Your task to perform on an android device: change timer sound Image 0: 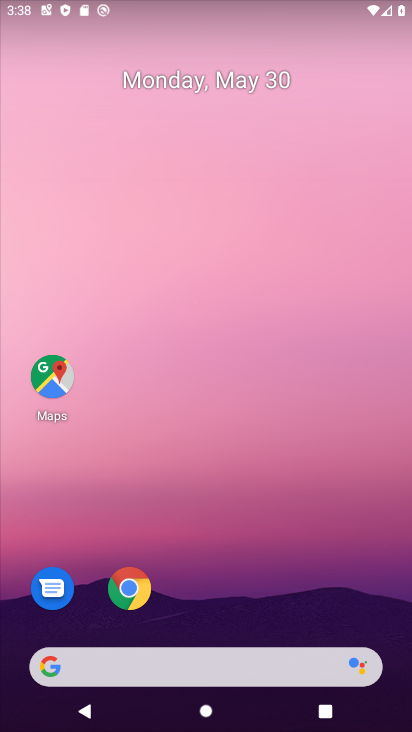
Step 0: drag from (289, 579) to (264, 28)
Your task to perform on an android device: change timer sound Image 1: 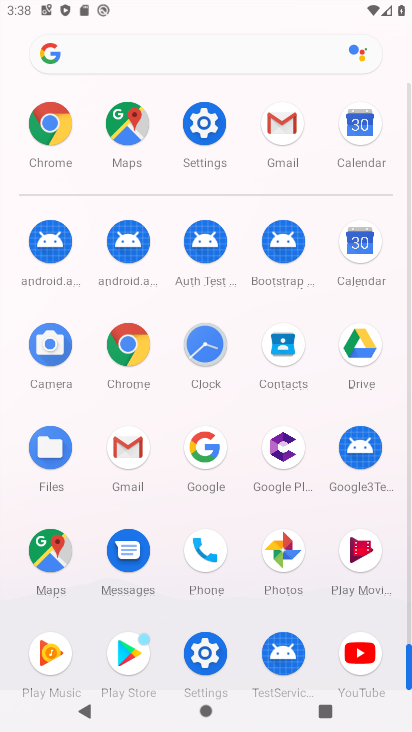
Step 1: click (198, 342)
Your task to perform on an android device: change timer sound Image 2: 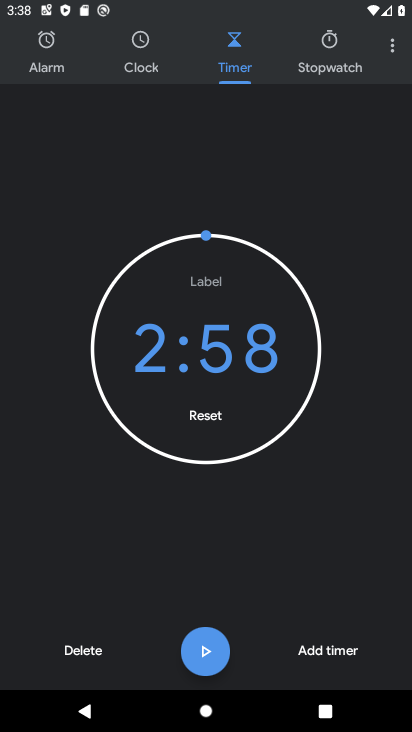
Step 2: drag from (392, 46) to (342, 93)
Your task to perform on an android device: change timer sound Image 3: 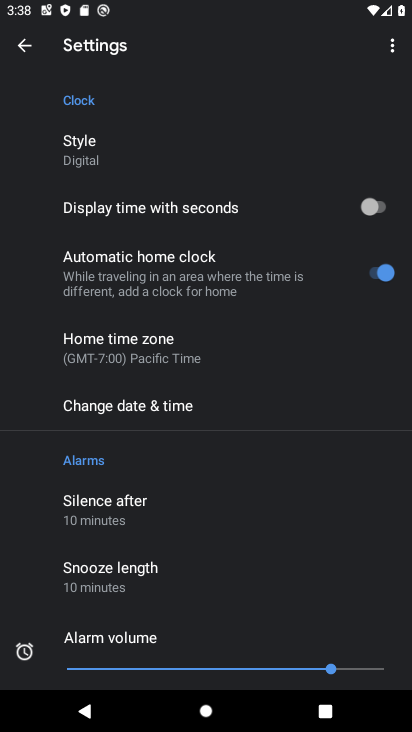
Step 3: drag from (256, 539) to (264, 163)
Your task to perform on an android device: change timer sound Image 4: 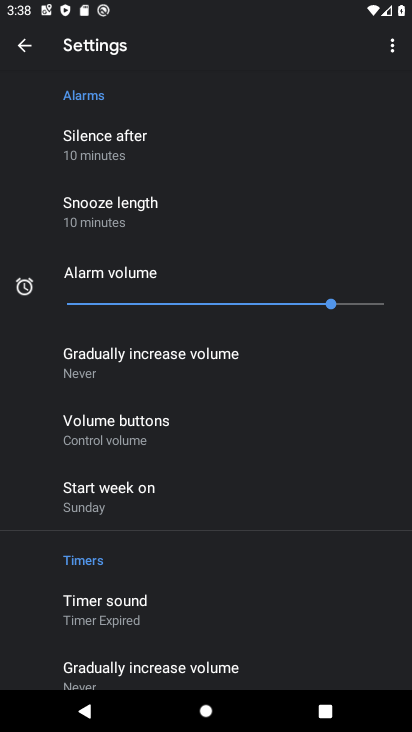
Step 4: drag from (204, 454) to (227, 165)
Your task to perform on an android device: change timer sound Image 5: 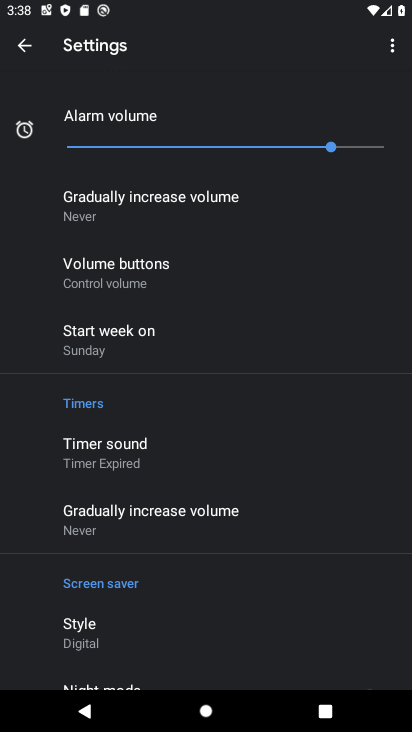
Step 5: click (132, 440)
Your task to perform on an android device: change timer sound Image 6: 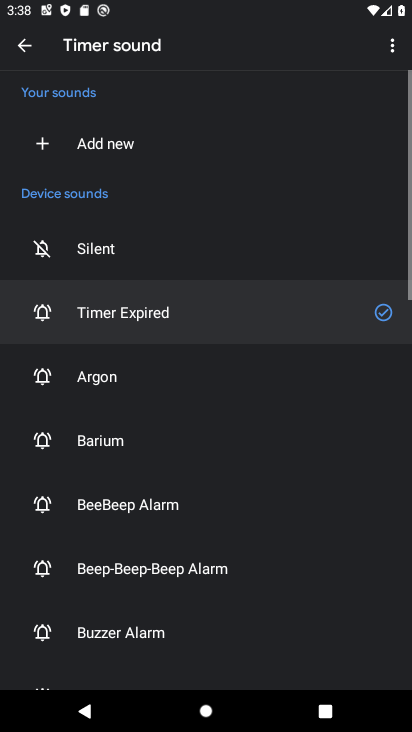
Step 6: click (123, 375)
Your task to perform on an android device: change timer sound Image 7: 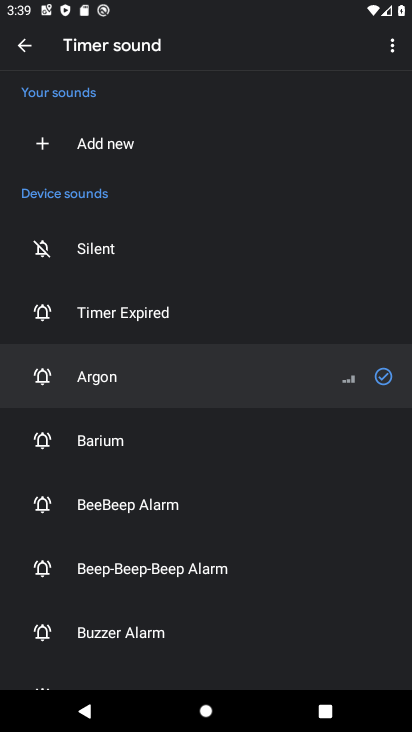
Step 7: task complete